Your task to perform on an android device: Go to CNN.com Image 0: 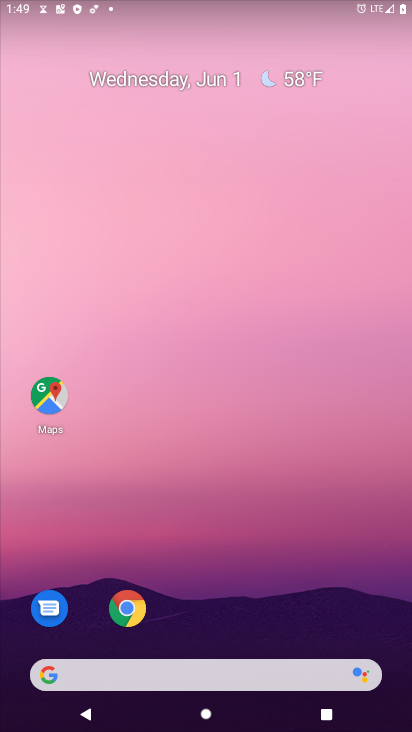
Step 0: click (128, 617)
Your task to perform on an android device: Go to CNN.com Image 1: 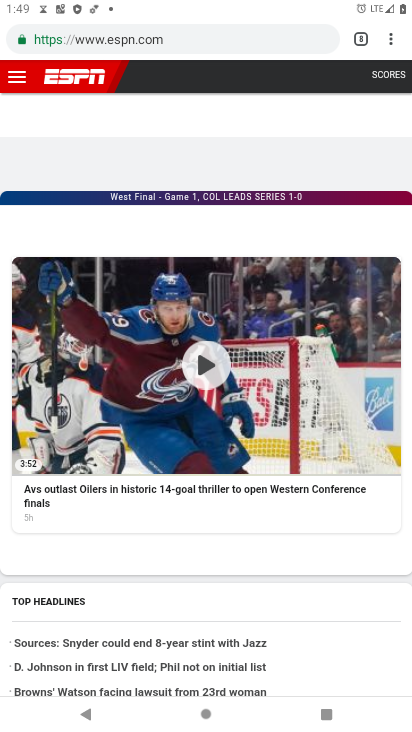
Step 1: click (129, 606)
Your task to perform on an android device: Go to CNN.com Image 2: 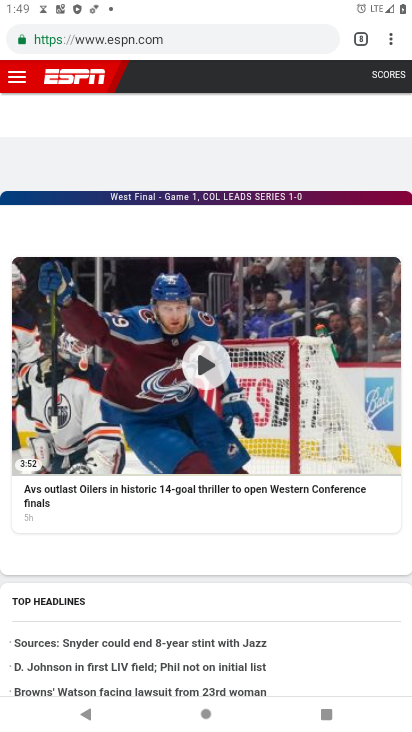
Step 2: click (383, 38)
Your task to perform on an android device: Go to CNN.com Image 3: 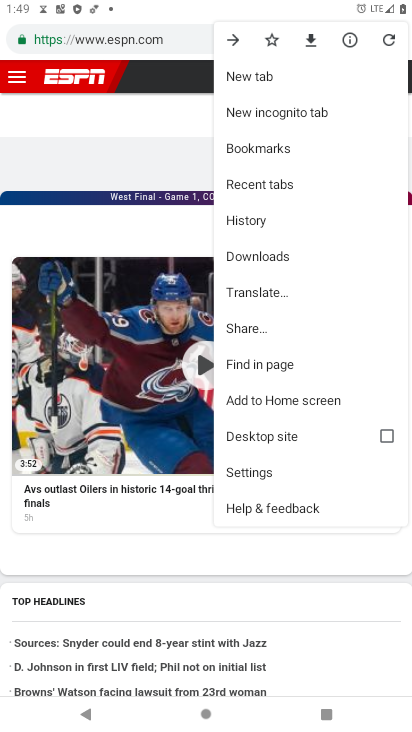
Step 3: click (142, 37)
Your task to perform on an android device: Go to CNN.com Image 4: 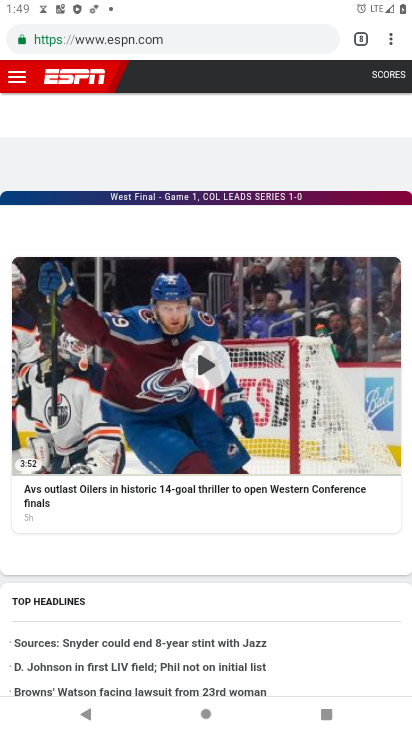
Step 4: click (360, 40)
Your task to perform on an android device: Go to CNN.com Image 5: 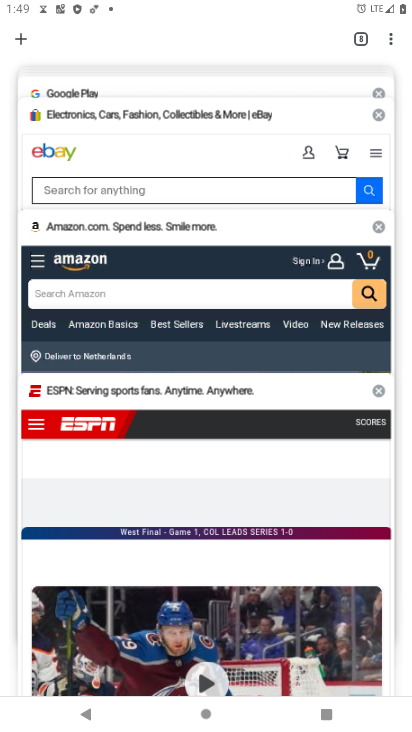
Step 5: drag from (271, 163) to (306, 520)
Your task to perform on an android device: Go to CNN.com Image 6: 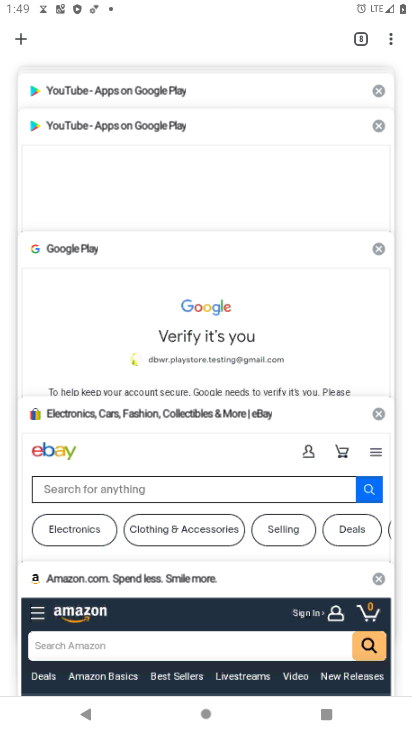
Step 6: drag from (209, 126) to (252, 517)
Your task to perform on an android device: Go to CNN.com Image 7: 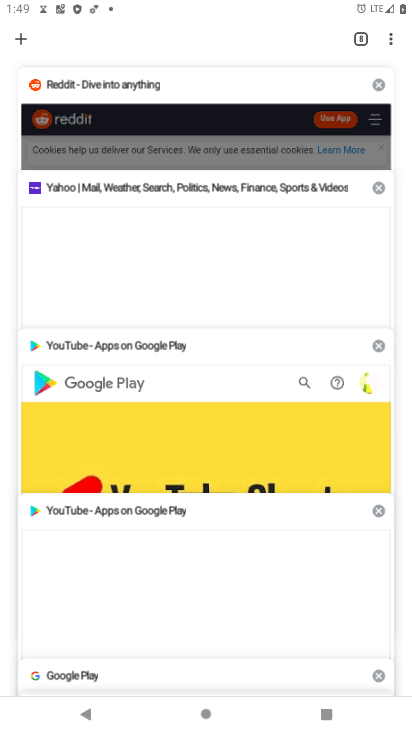
Step 7: drag from (266, 159) to (273, 576)
Your task to perform on an android device: Go to CNN.com Image 8: 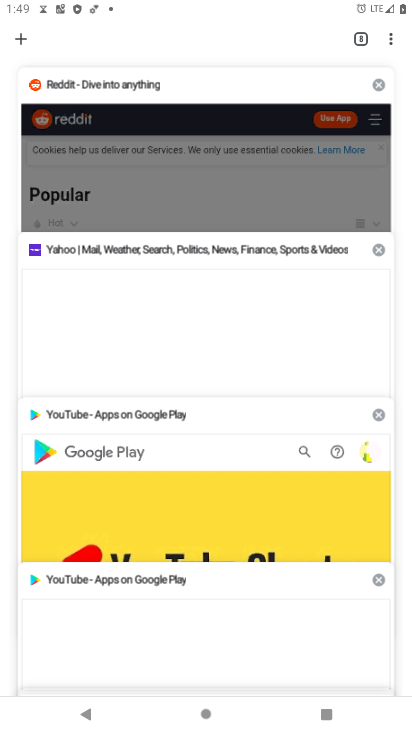
Step 8: drag from (265, 114) to (265, 546)
Your task to perform on an android device: Go to CNN.com Image 9: 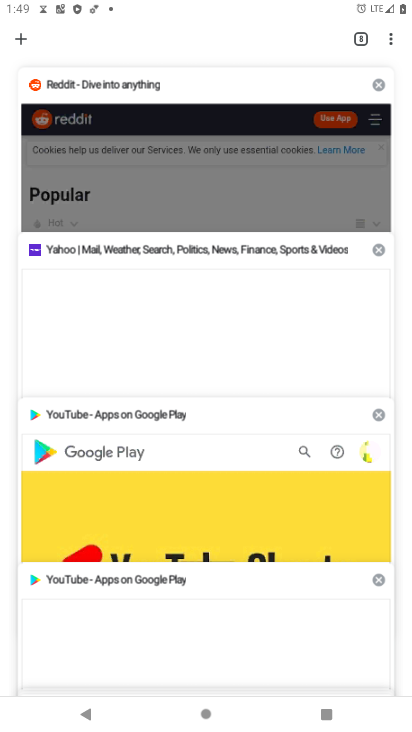
Step 9: drag from (264, 552) to (261, 178)
Your task to perform on an android device: Go to CNN.com Image 10: 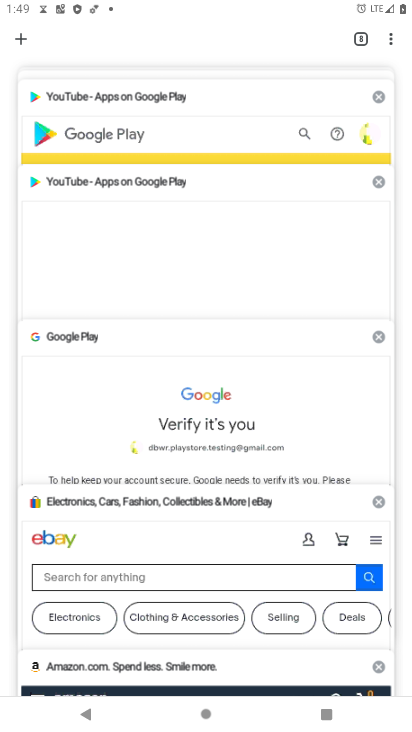
Step 10: drag from (240, 487) to (277, 103)
Your task to perform on an android device: Go to CNN.com Image 11: 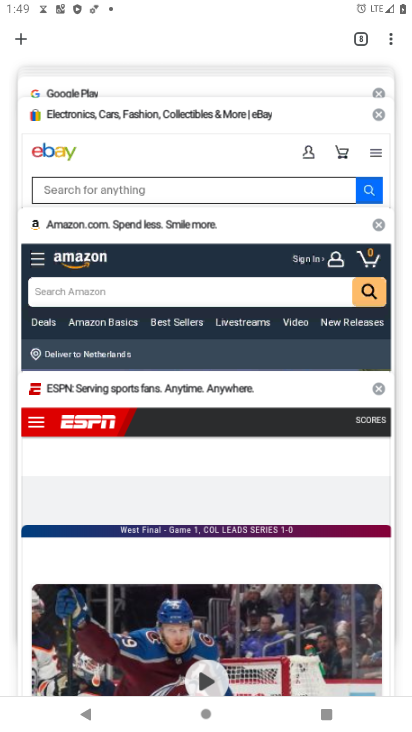
Step 11: drag from (160, 598) to (193, 159)
Your task to perform on an android device: Go to CNN.com Image 12: 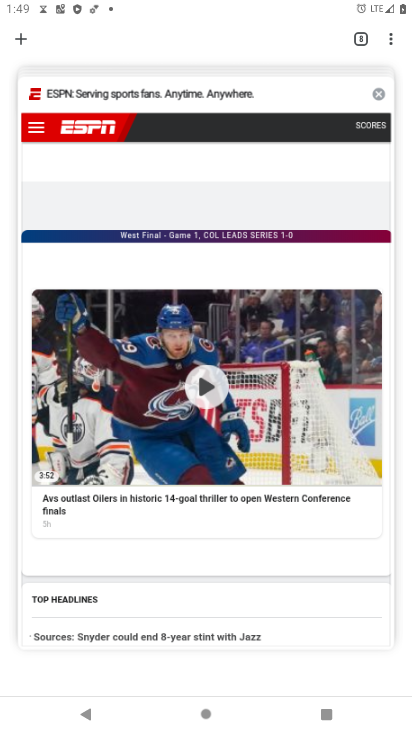
Step 12: drag from (213, 676) to (259, 215)
Your task to perform on an android device: Go to CNN.com Image 13: 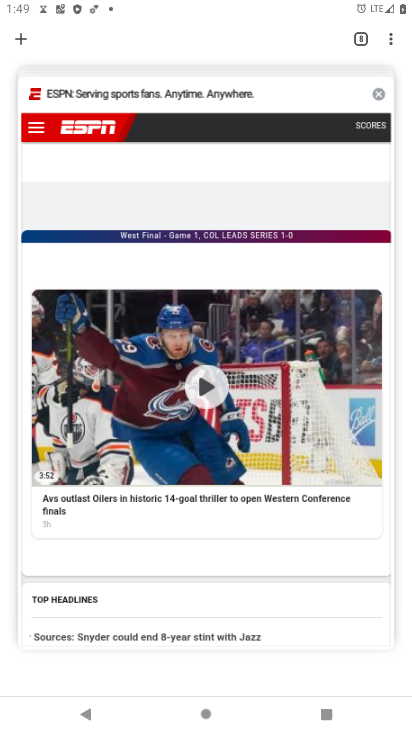
Step 13: drag from (309, 127) to (334, 666)
Your task to perform on an android device: Go to CNN.com Image 14: 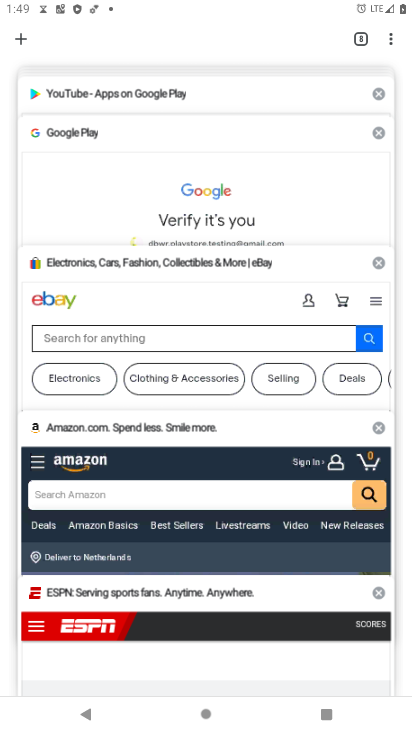
Step 14: click (27, 38)
Your task to perform on an android device: Go to CNN.com Image 15: 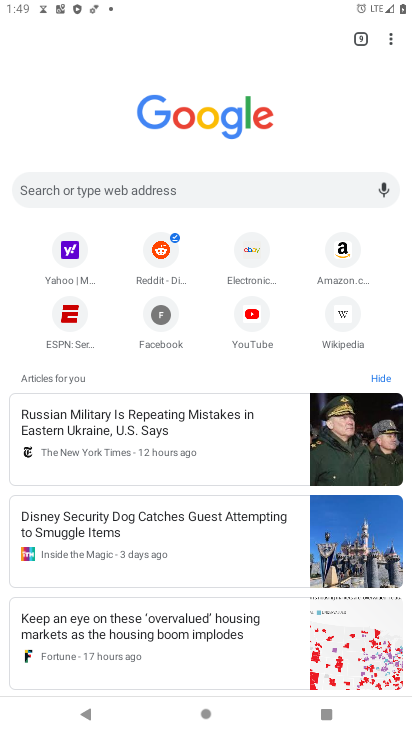
Step 15: click (203, 187)
Your task to perform on an android device: Go to CNN.com Image 16: 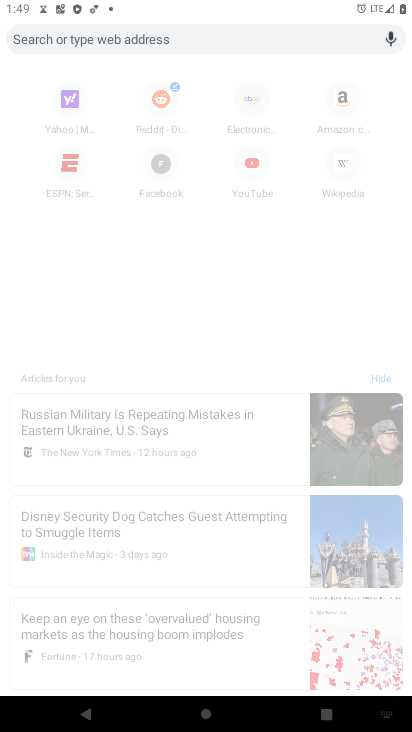
Step 16: type "CNN.com"
Your task to perform on an android device: Go to CNN.com Image 17: 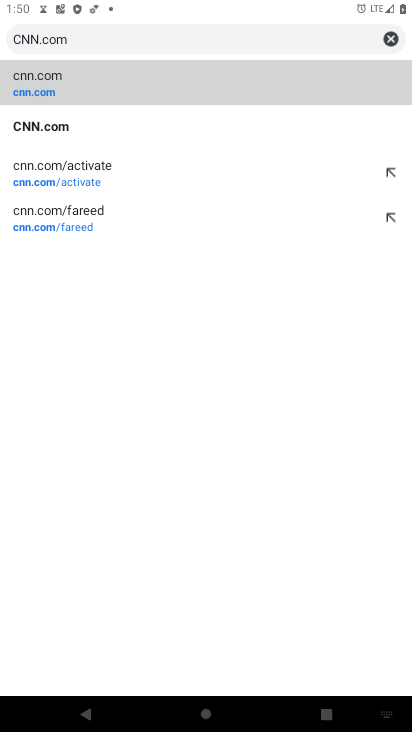
Step 17: click (82, 74)
Your task to perform on an android device: Go to CNN.com Image 18: 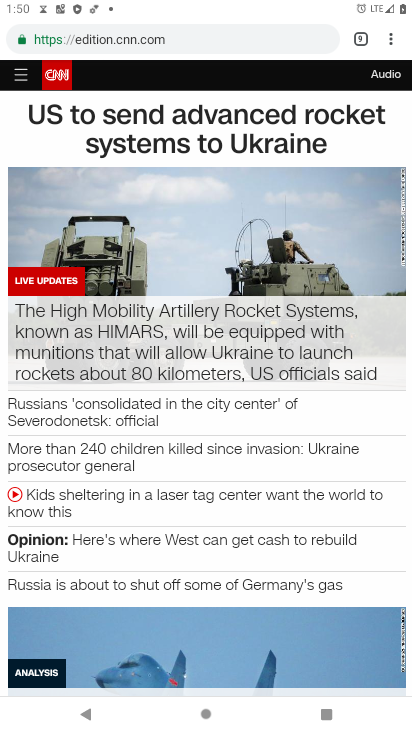
Step 18: task complete